Your task to perform on an android device: install app "Grab" Image 0: 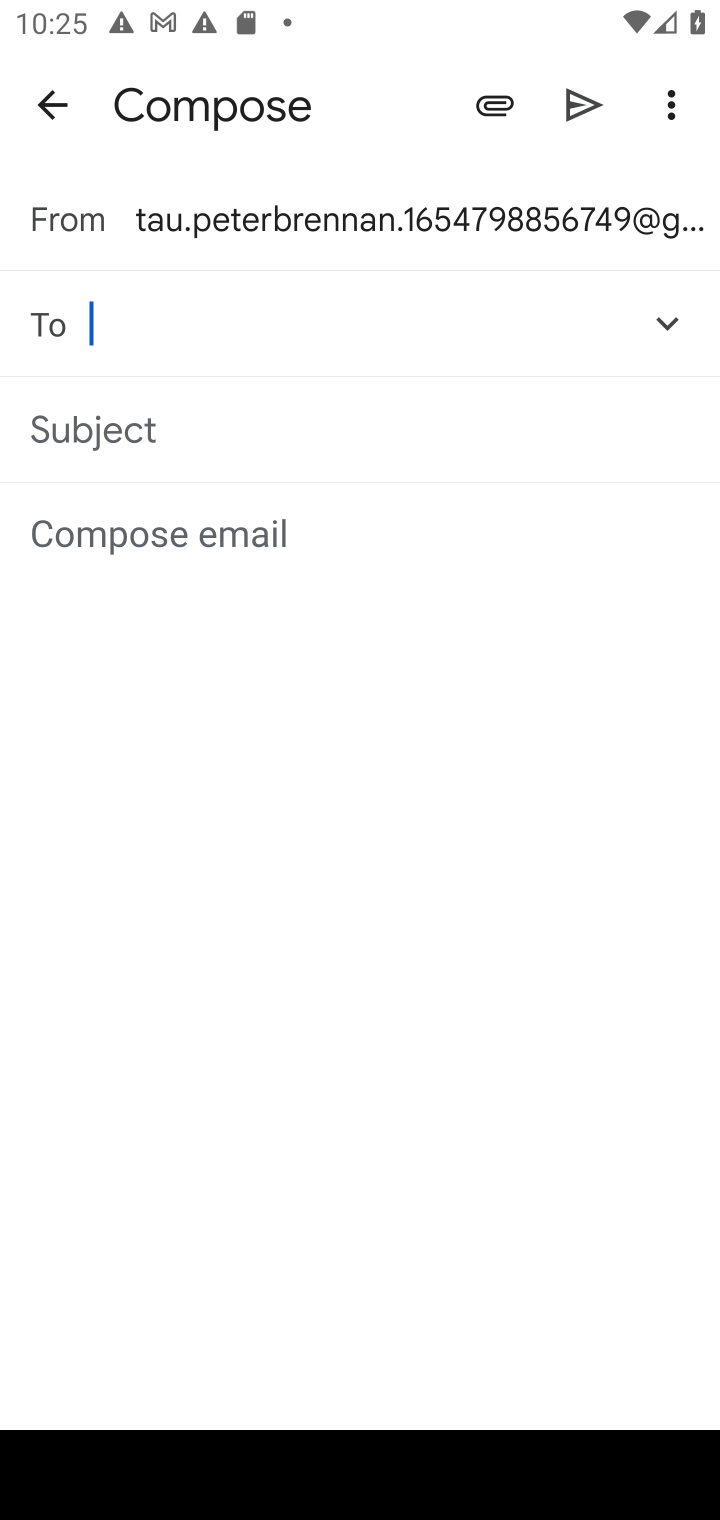
Step 0: press home button
Your task to perform on an android device: install app "Grab" Image 1: 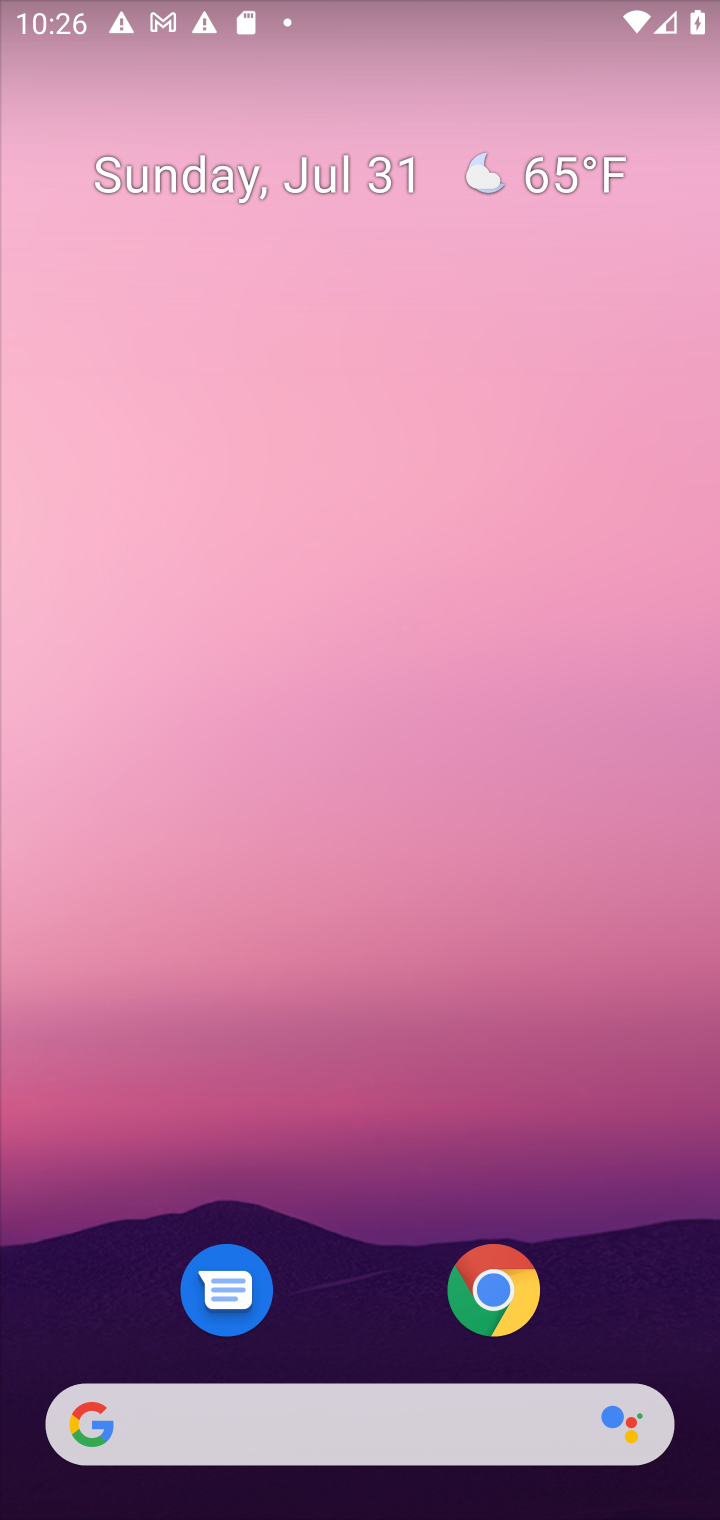
Step 1: drag from (623, 621) to (623, 130)
Your task to perform on an android device: install app "Grab" Image 2: 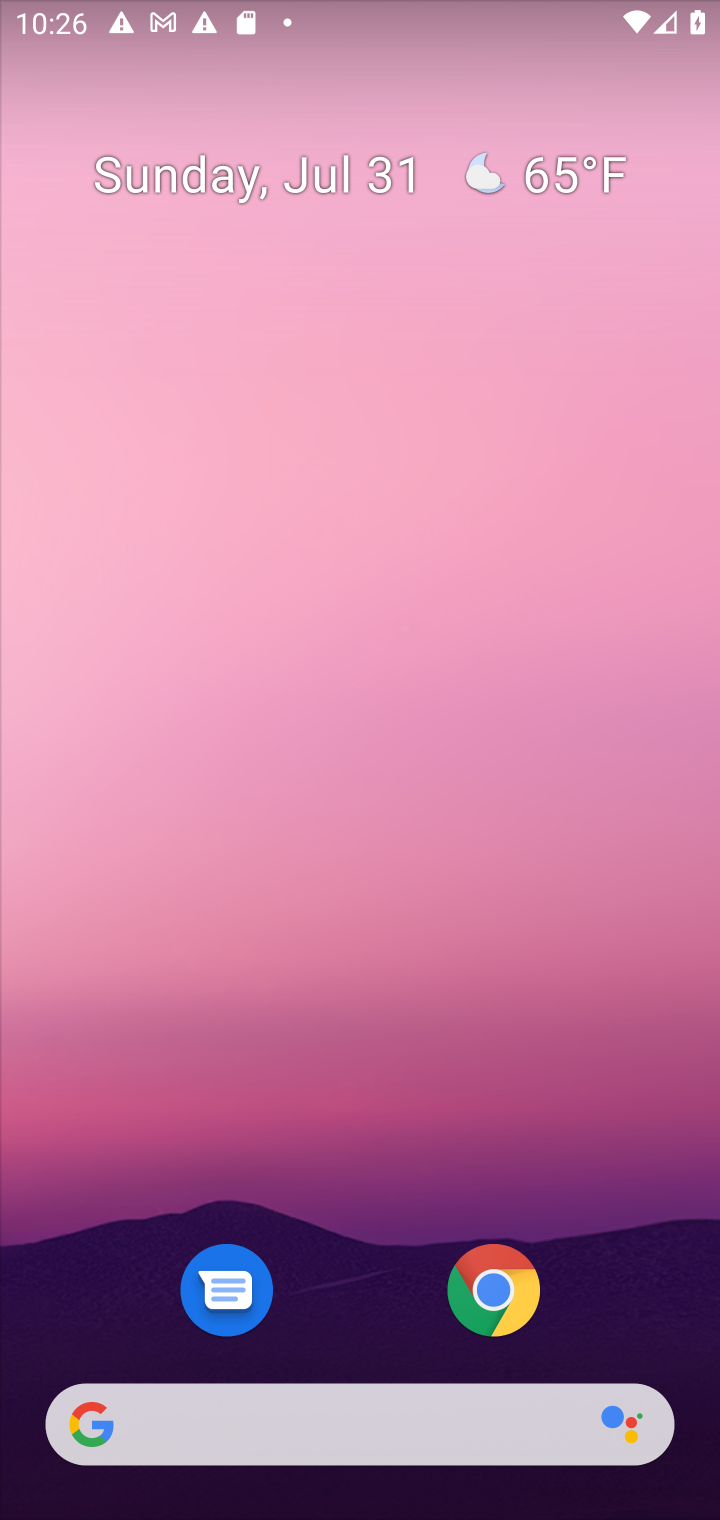
Step 2: drag from (586, 1060) to (533, 128)
Your task to perform on an android device: install app "Grab" Image 3: 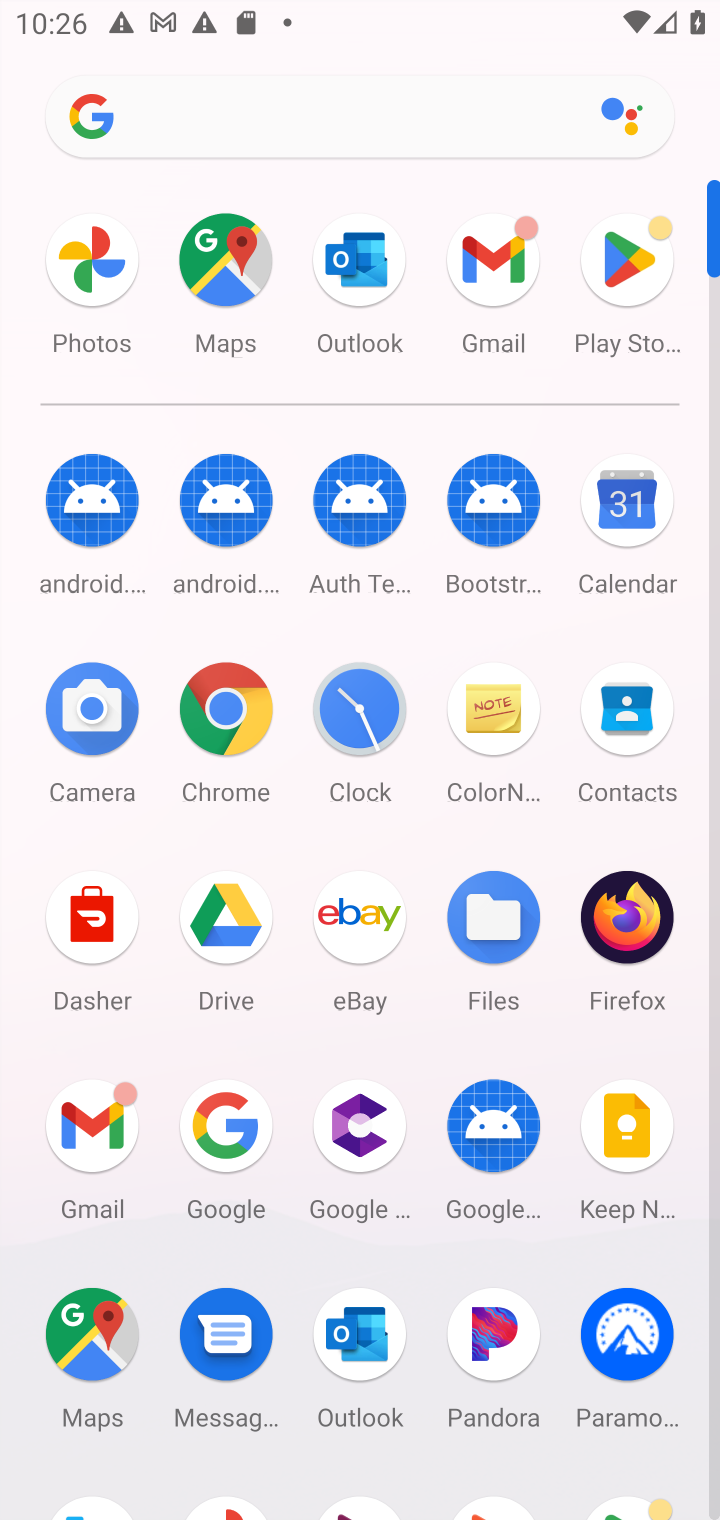
Step 3: click (627, 257)
Your task to perform on an android device: install app "Grab" Image 4: 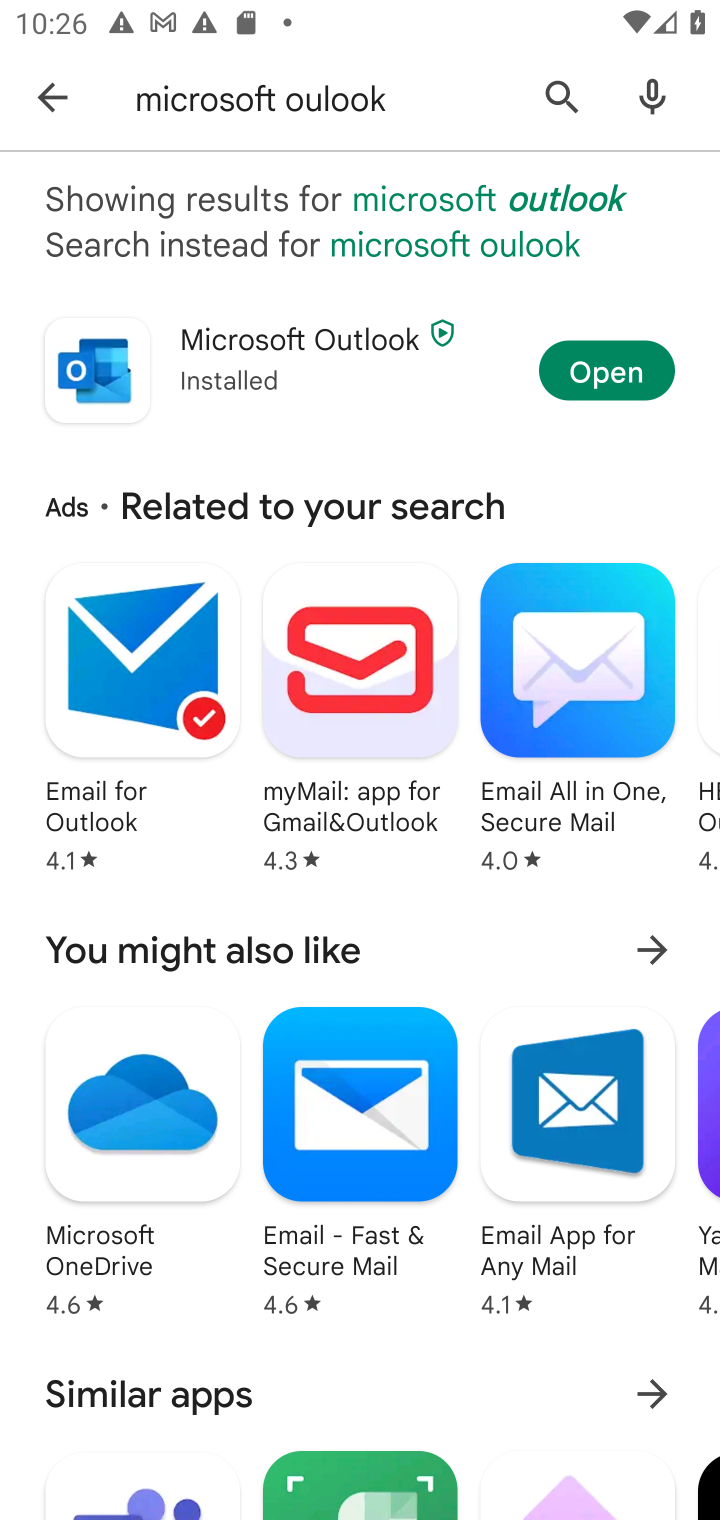
Step 4: click (534, 92)
Your task to perform on an android device: install app "Grab" Image 5: 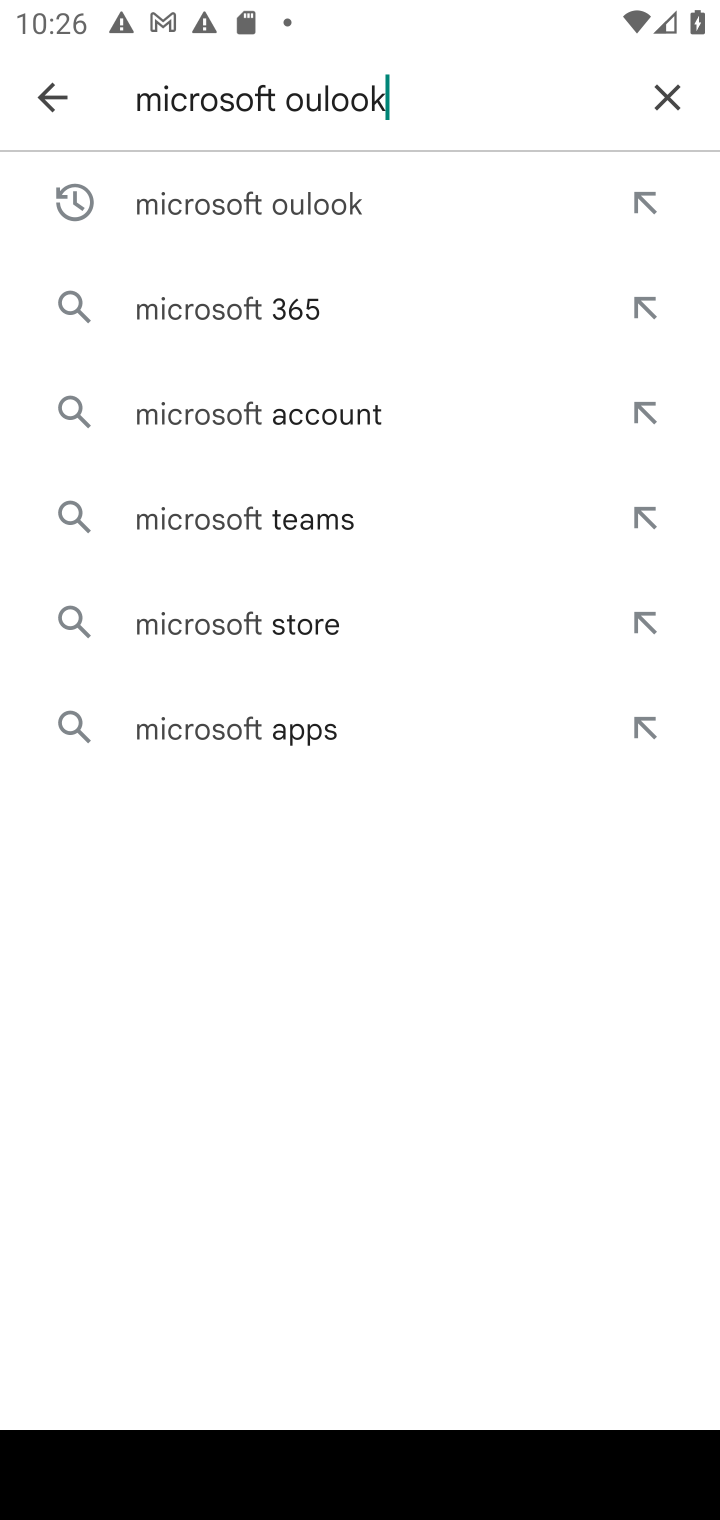
Step 5: click (675, 106)
Your task to perform on an android device: install app "Grab" Image 6: 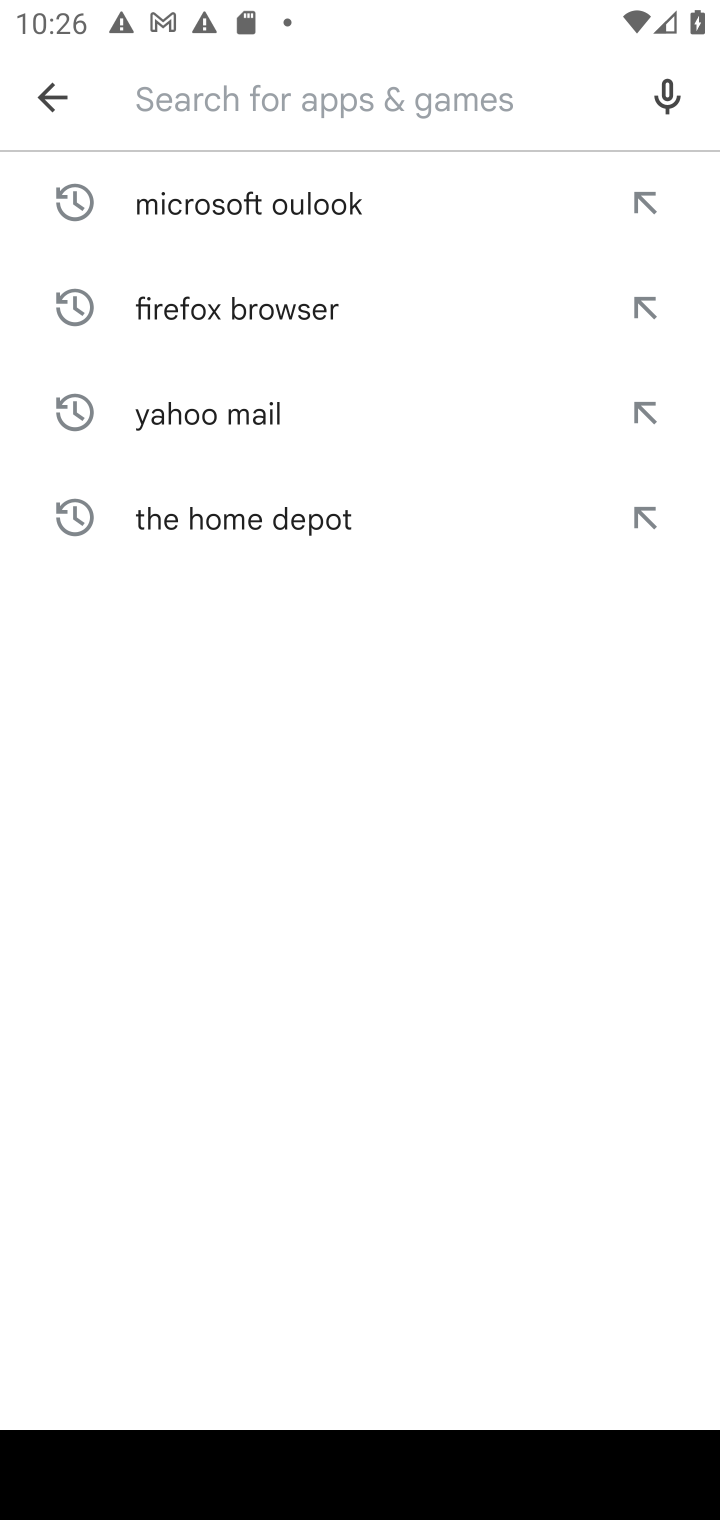
Step 6: click (356, 99)
Your task to perform on an android device: install app "Grab" Image 7: 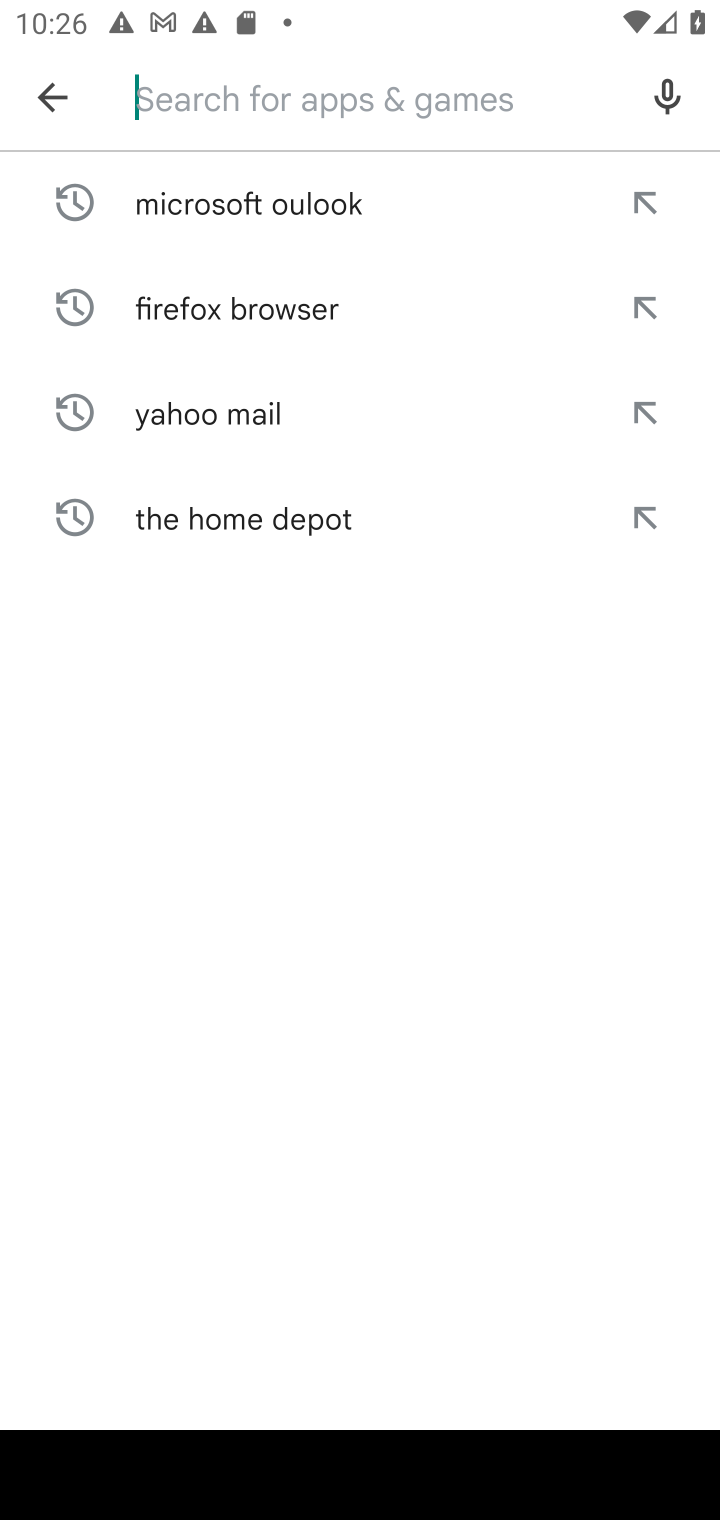
Step 7: type "grab"
Your task to perform on an android device: install app "Grab" Image 8: 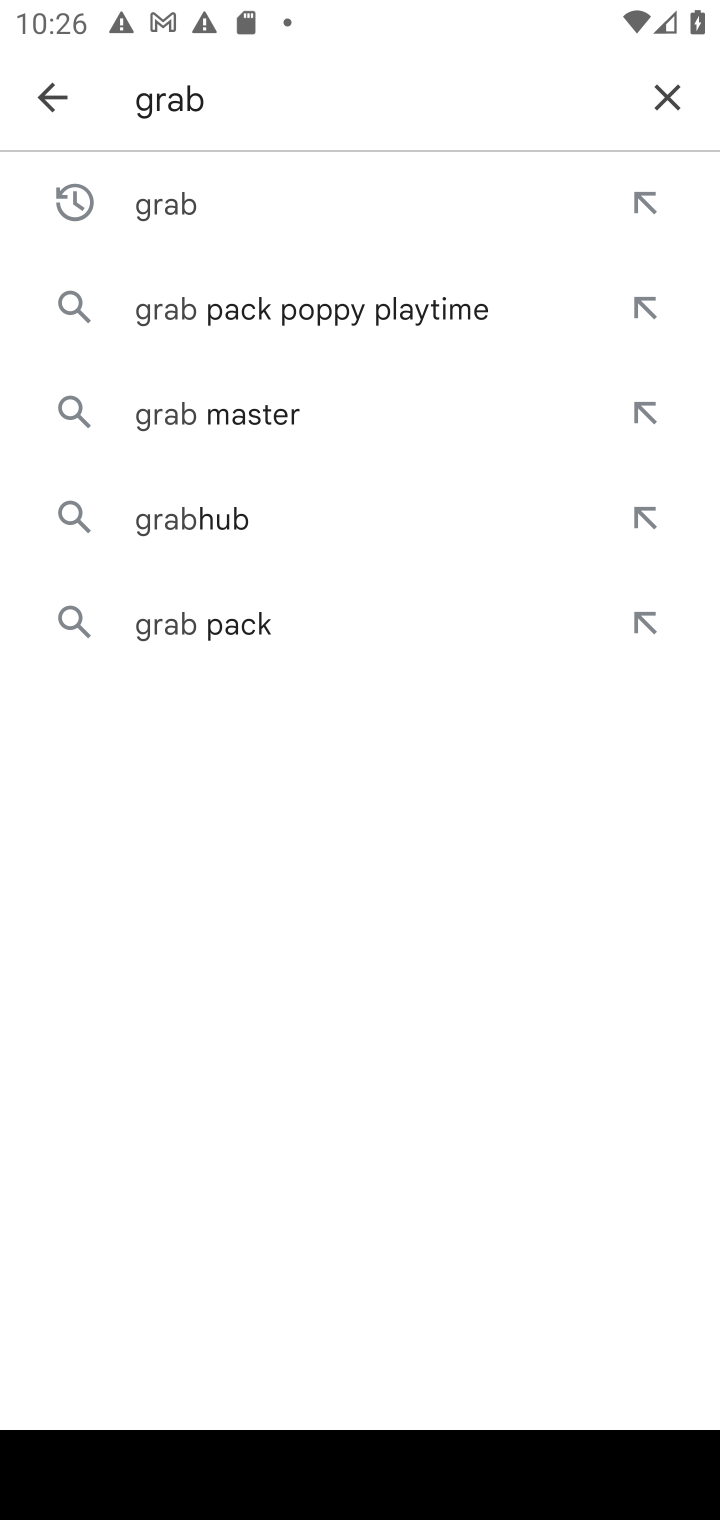
Step 8: click (304, 223)
Your task to perform on an android device: install app "Grab" Image 9: 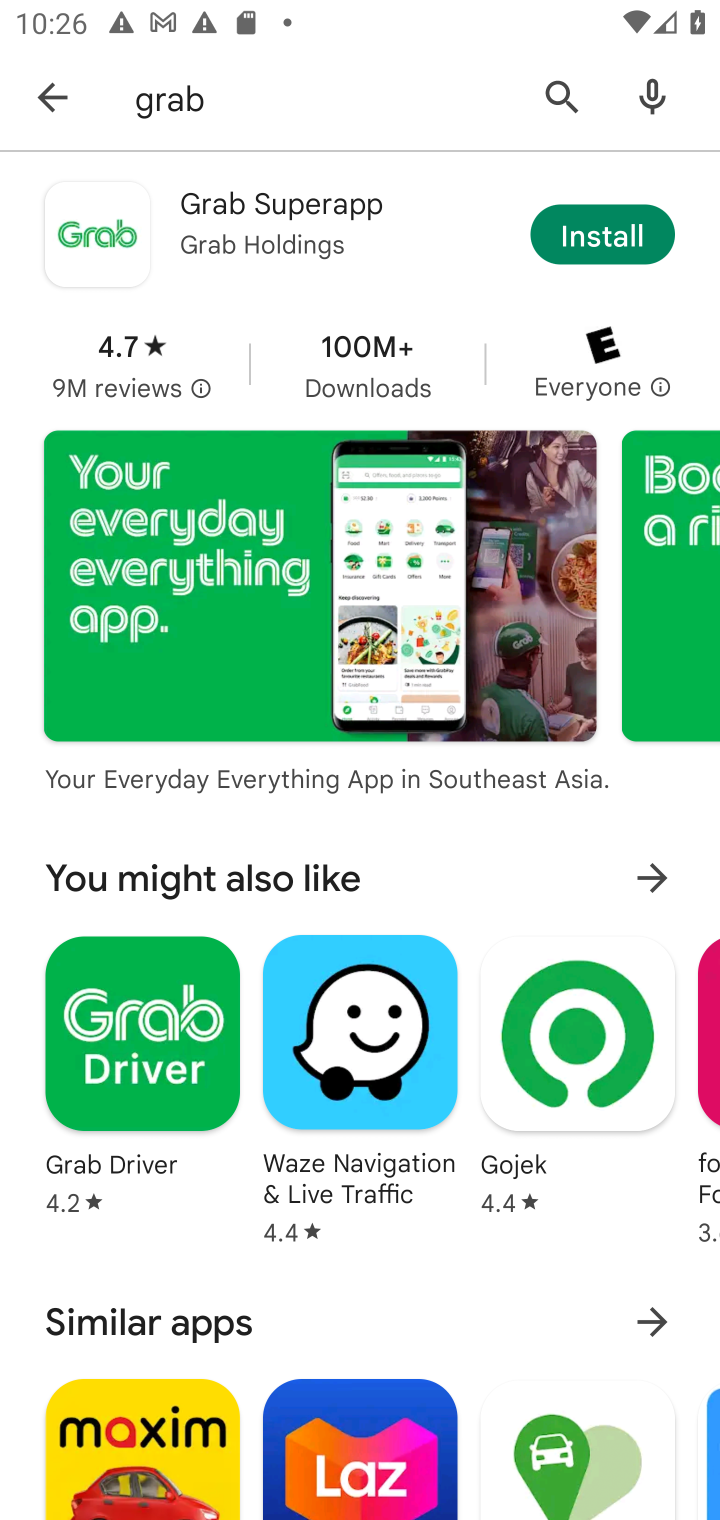
Step 9: click (598, 236)
Your task to perform on an android device: install app "Grab" Image 10: 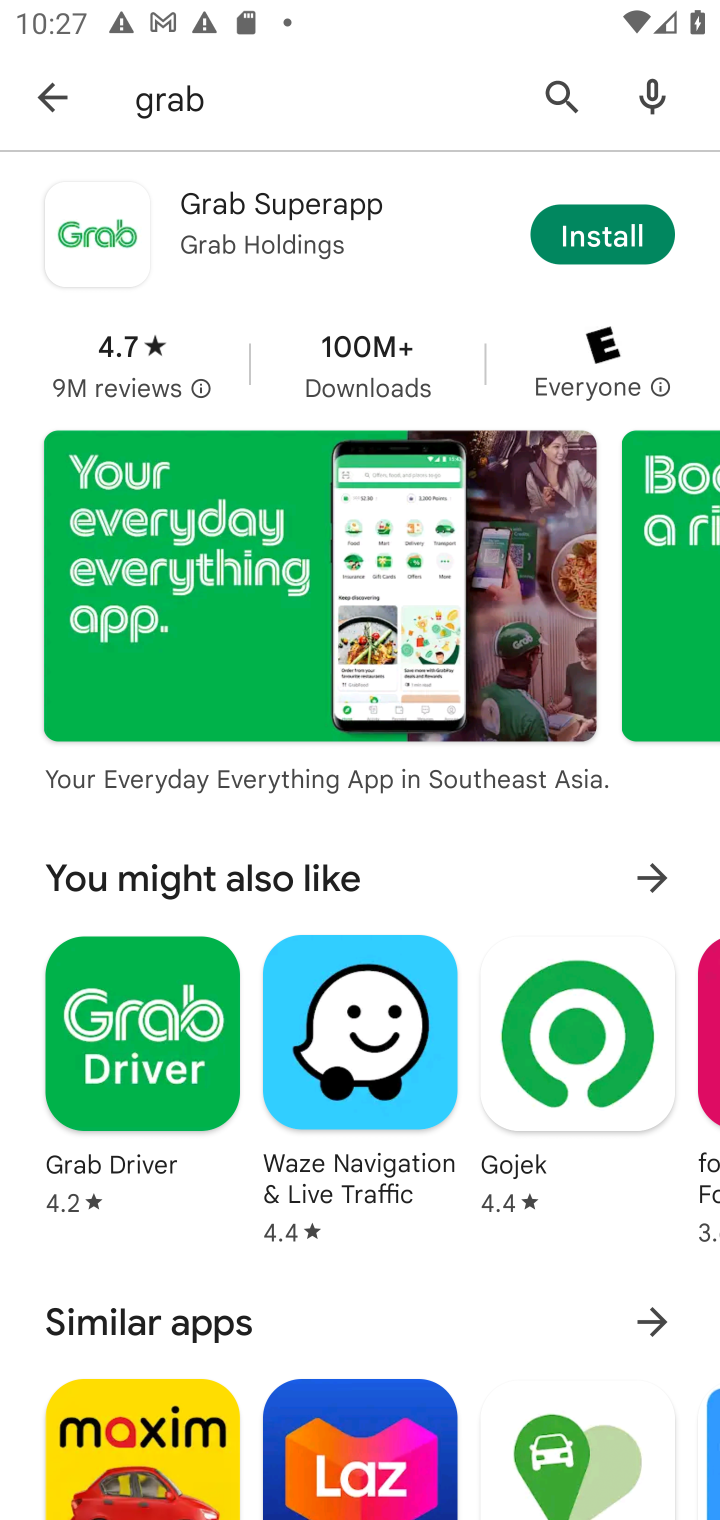
Step 10: click (583, 217)
Your task to perform on an android device: install app "Grab" Image 11: 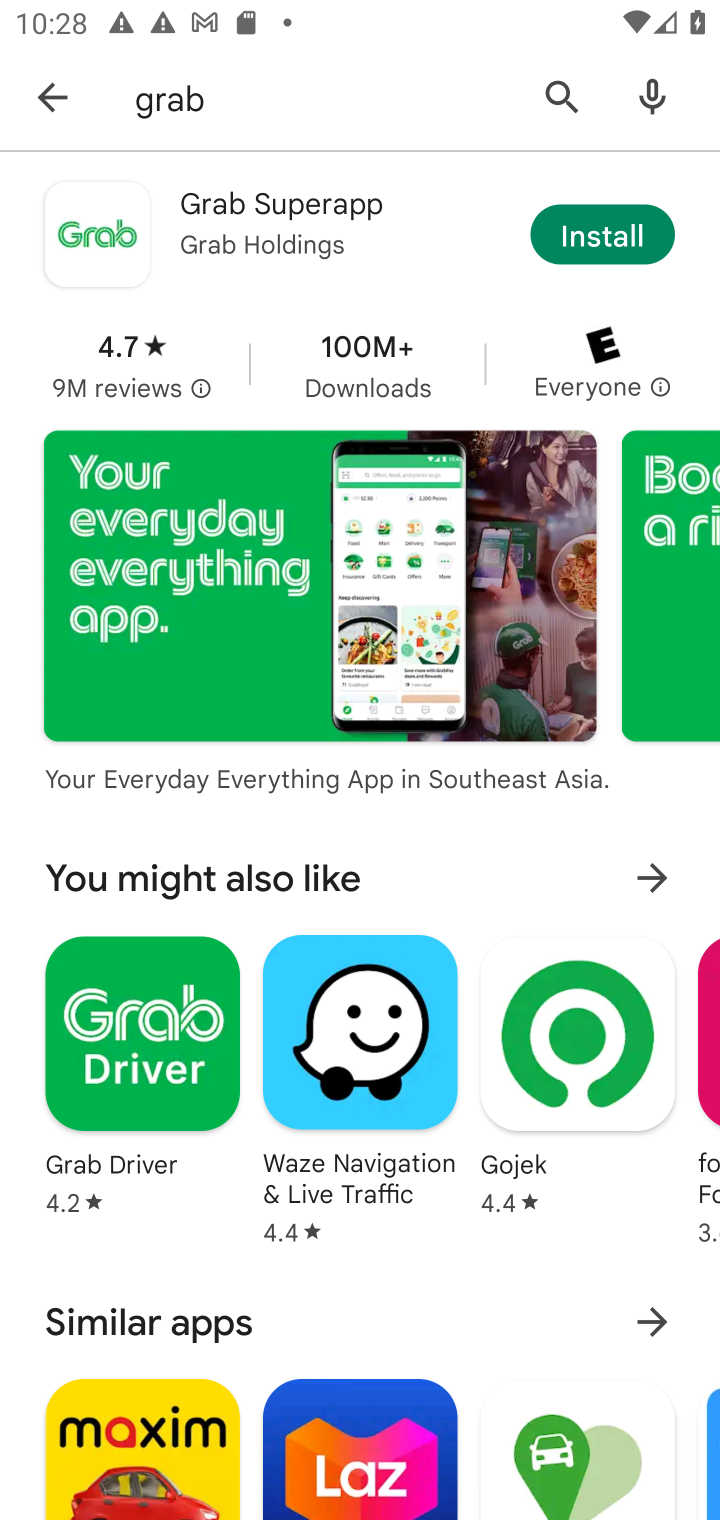
Step 11: task complete